Your task to perform on an android device: Show me popular videos on Youtube Image 0: 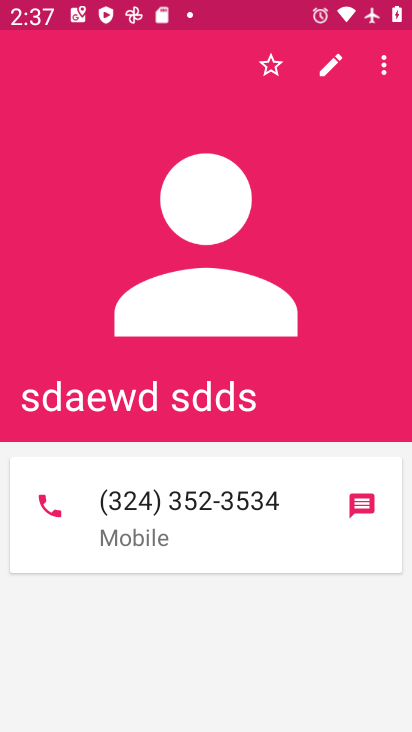
Step 0: press home button
Your task to perform on an android device: Show me popular videos on Youtube Image 1: 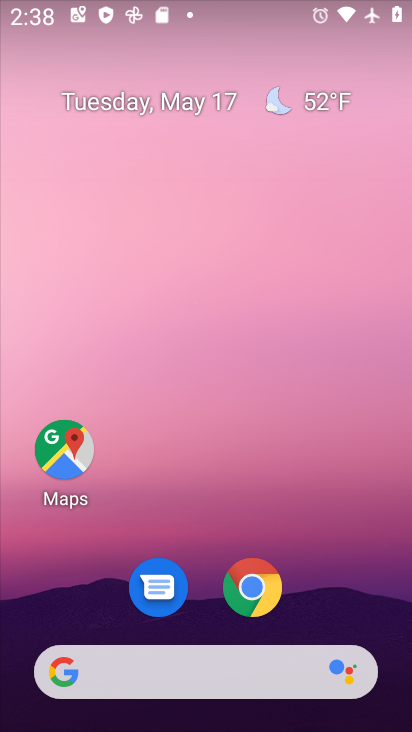
Step 1: drag from (323, 615) to (321, 97)
Your task to perform on an android device: Show me popular videos on Youtube Image 2: 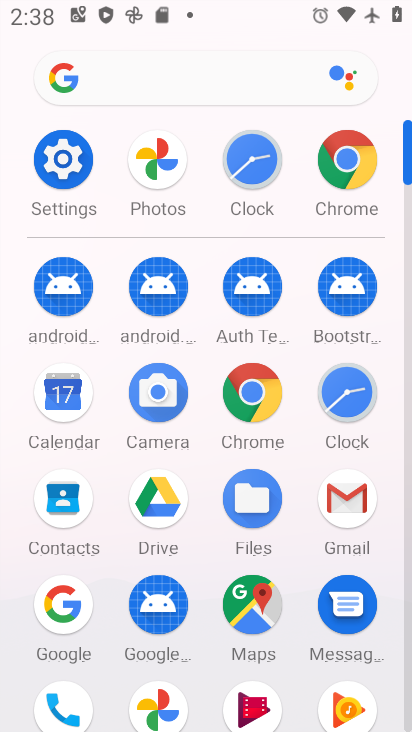
Step 2: click (407, 680)
Your task to perform on an android device: Show me popular videos on Youtube Image 3: 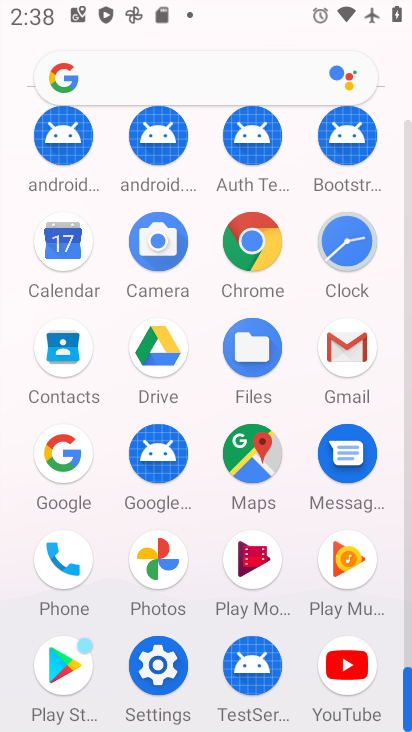
Step 3: click (377, 674)
Your task to perform on an android device: Show me popular videos on Youtube Image 4: 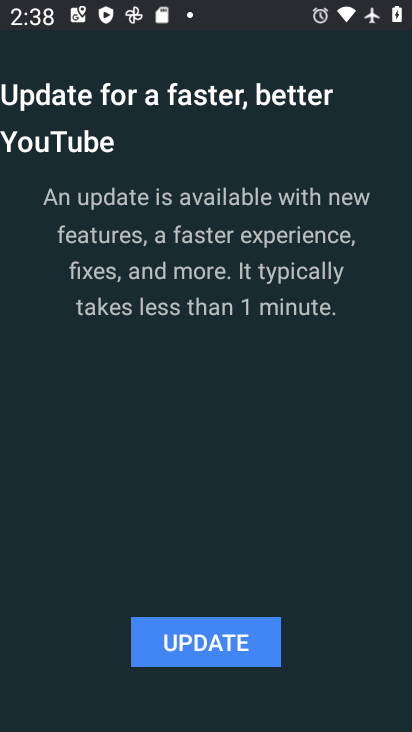
Step 4: click (231, 642)
Your task to perform on an android device: Show me popular videos on Youtube Image 5: 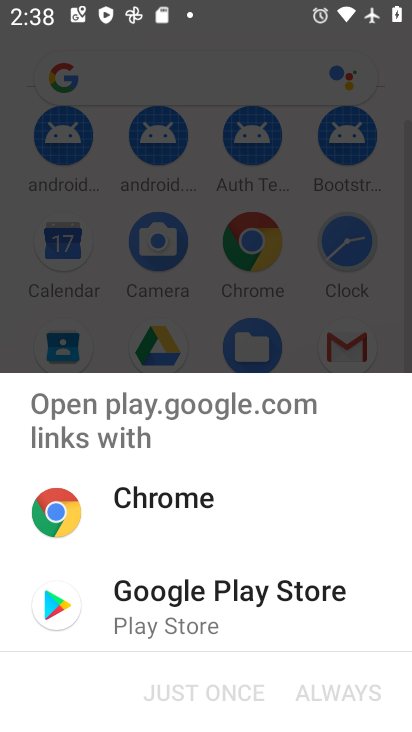
Step 5: click (128, 502)
Your task to perform on an android device: Show me popular videos on Youtube Image 6: 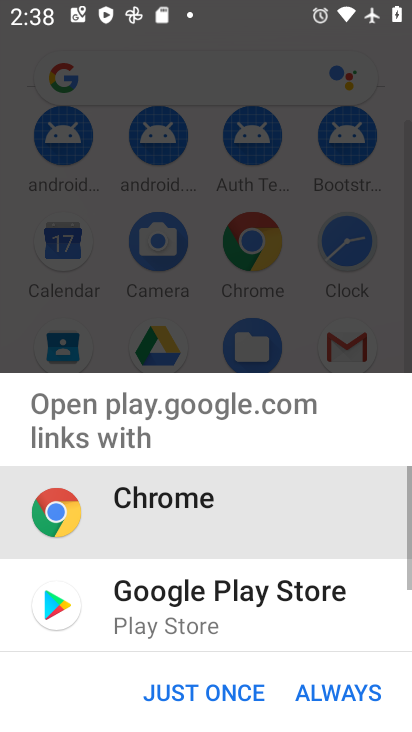
Step 6: click (104, 589)
Your task to perform on an android device: Show me popular videos on Youtube Image 7: 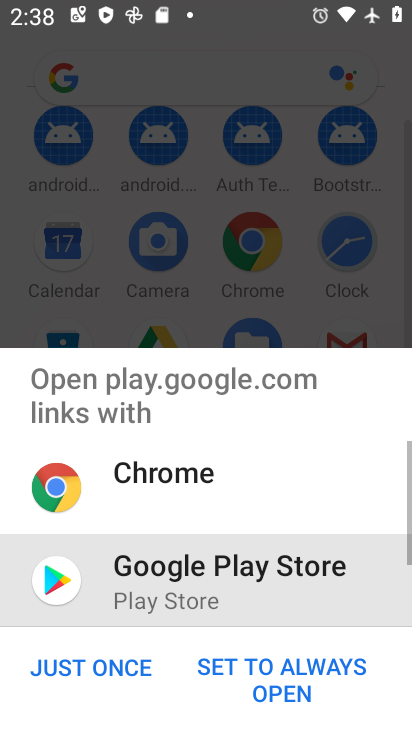
Step 7: drag from (212, 697) to (98, 692)
Your task to perform on an android device: Show me popular videos on Youtube Image 8: 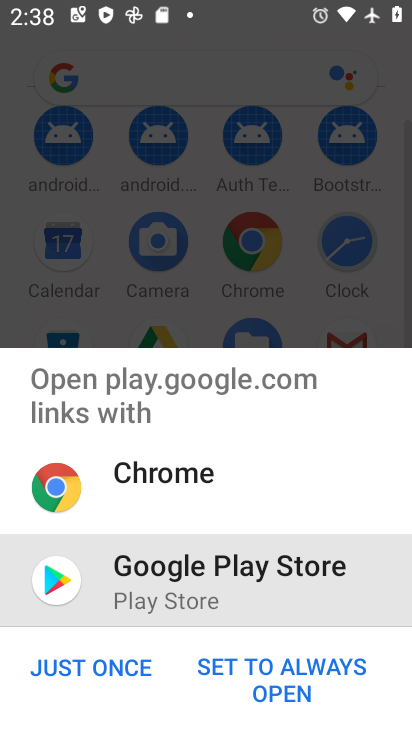
Step 8: click (98, 691)
Your task to perform on an android device: Show me popular videos on Youtube Image 9: 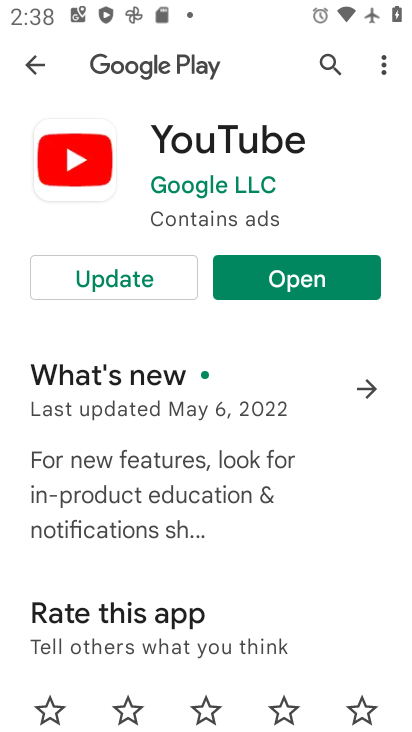
Step 9: click (129, 281)
Your task to perform on an android device: Show me popular videos on Youtube Image 10: 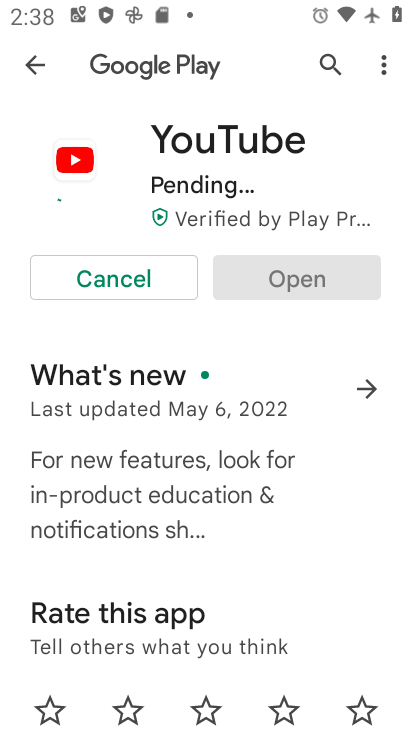
Step 10: task complete